Your task to perform on an android device: visit the assistant section in the google photos Image 0: 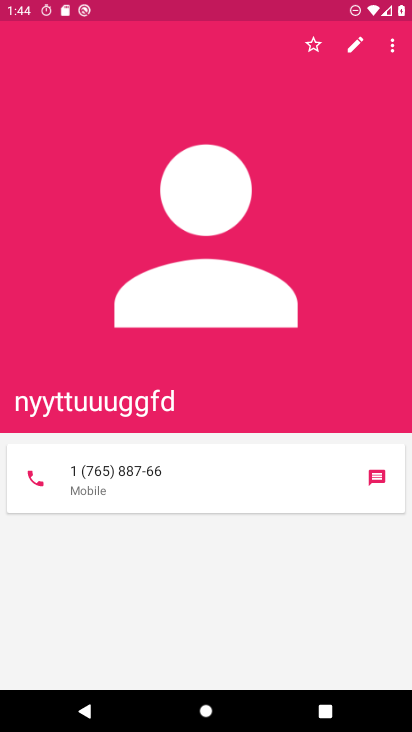
Step 0: press home button
Your task to perform on an android device: visit the assistant section in the google photos Image 1: 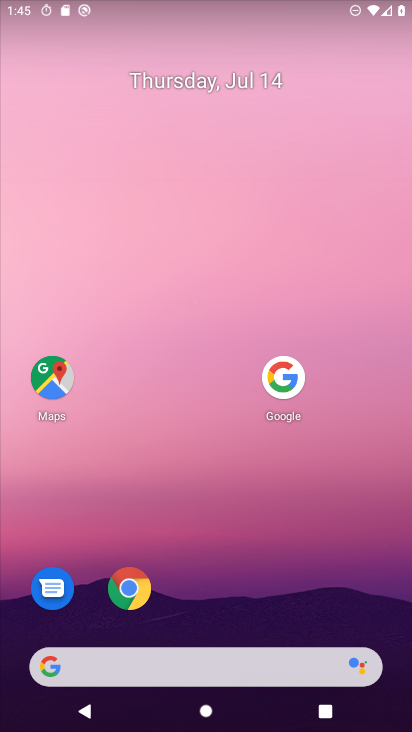
Step 1: drag from (166, 661) to (290, 177)
Your task to perform on an android device: visit the assistant section in the google photos Image 2: 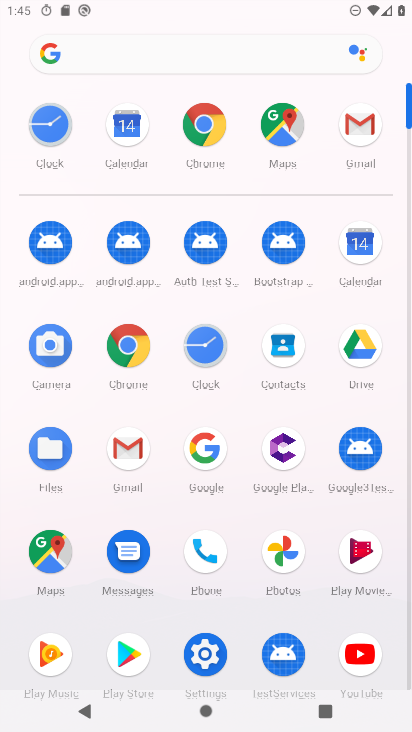
Step 2: click (284, 547)
Your task to perform on an android device: visit the assistant section in the google photos Image 3: 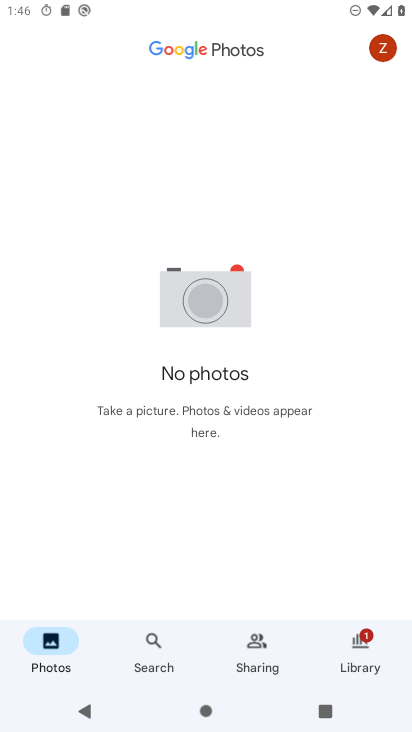
Step 3: click (358, 668)
Your task to perform on an android device: visit the assistant section in the google photos Image 4: 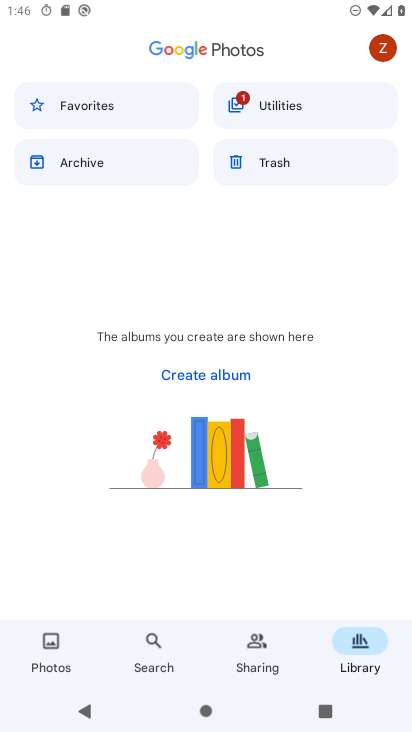
Step 4: task complete